Your task to perform on an android device: Open calendar and show me the first week of next month Image 0: 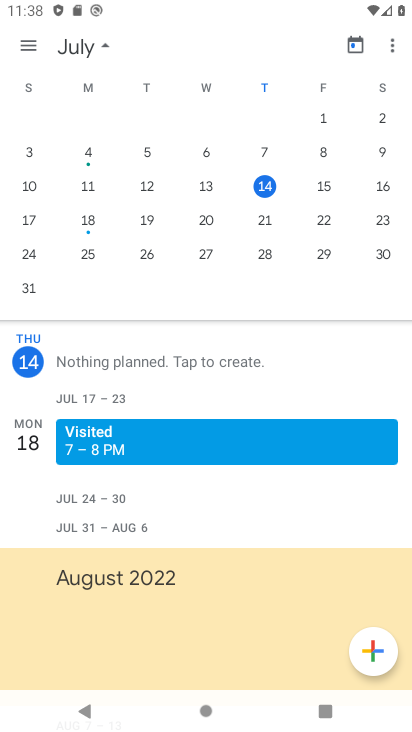
Step 0: drag from (344, 207) to (130, 301)
Your task to perform on an android device: Open calendar and show me the first week of next month Image 1: 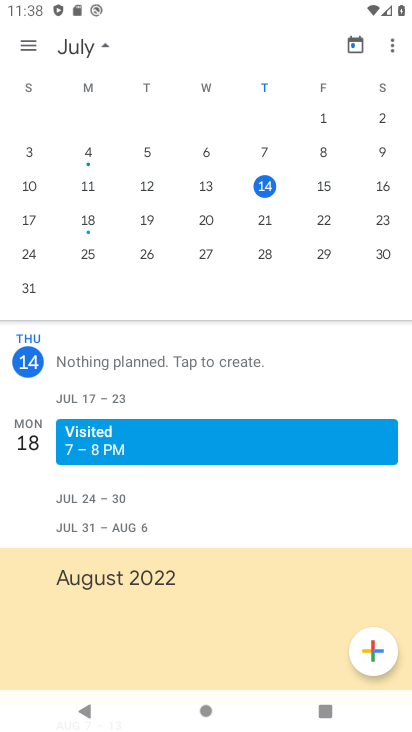
Step 1: drag from (371, 137) to (25, 329)
Your task to perform on an android device: Open calendar and show me the first week of next month Image 2: 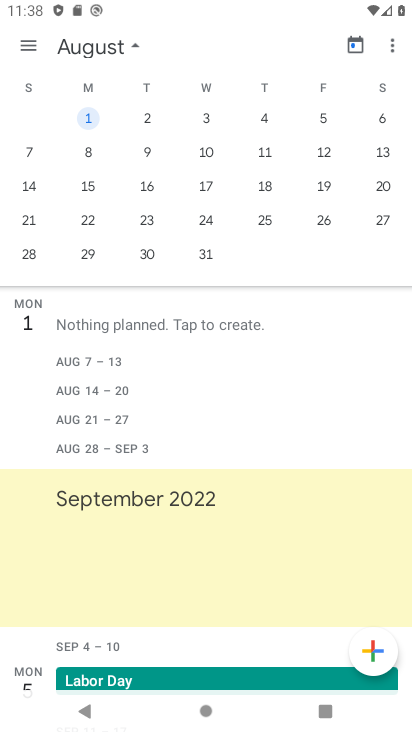
Step 2: click (395, 160)
Your task to perform on an android device: Open calendar and show me the first week of next month Image 3: 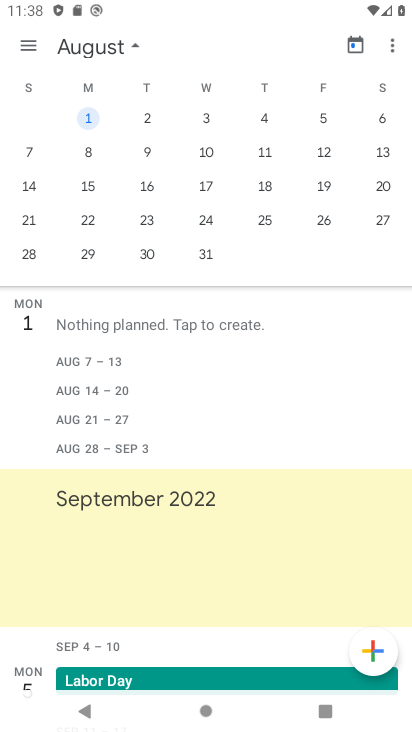
Step 3: click (85, 112)
Your task to perform on an android device: Open calendar and show me the first week of next month Image 4: 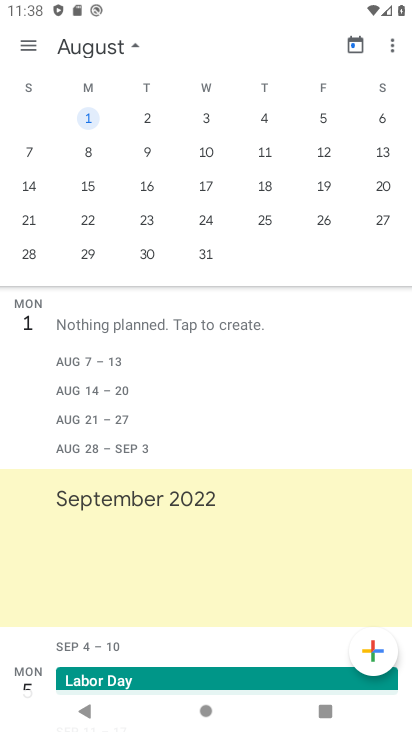
Step 4: task complete